Your task to perform on an android device: Go to display settings Image 0: 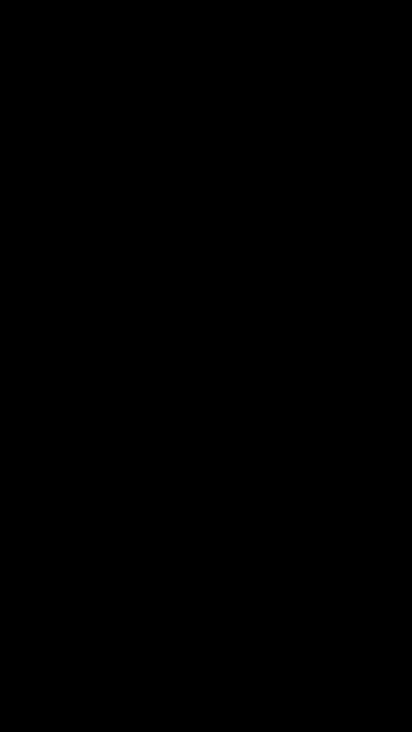
Step 0: press home button
Your task to perform on an android device: Go to display settings Image 1: 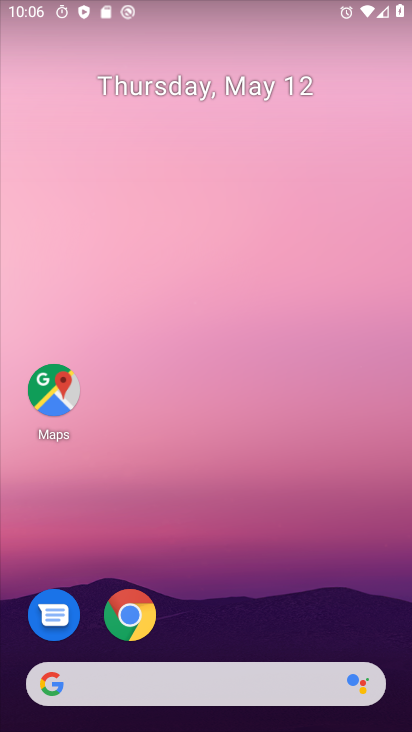
Step 1: drag from (301, 602) to (236, 93)
Your task to perform on an android device: Go to display settings Image 2: 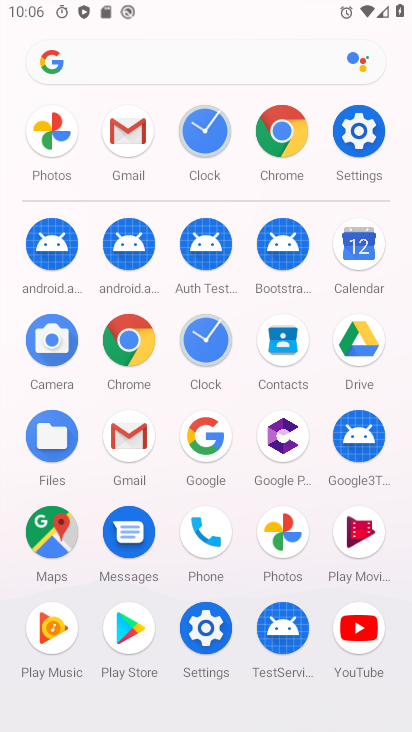
Step 2: click (360, 131)
Your task to perform on an android device: Go to display settings Image 3: 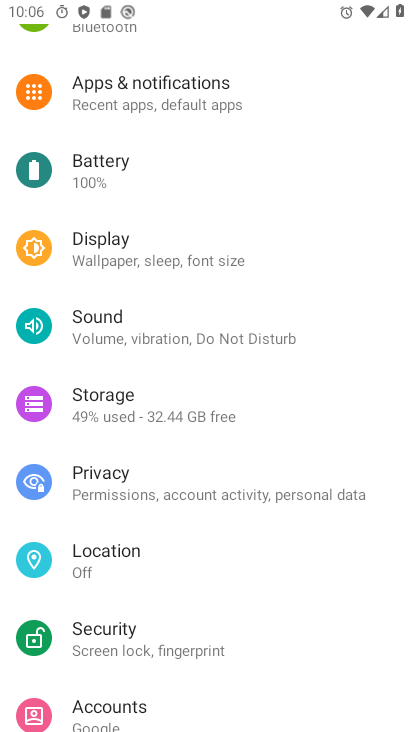
Step 3: drag from (193, 618) to (234, 126)
Your task to perform on an android device: Go to display settings Image 4: 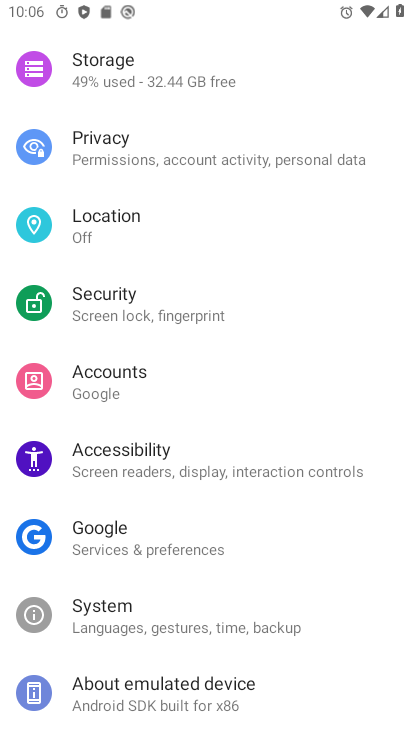
Step 4: drag from (201, 227) to (187, 705)
Your task to perform on an android device: Go to display settings Image 5: 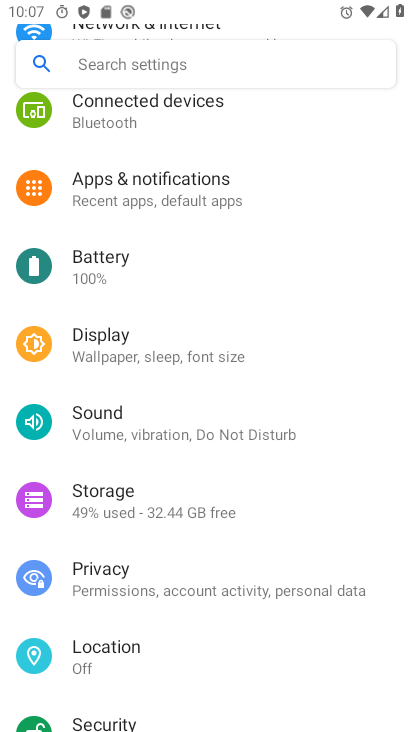
Step 5: drag from (169, 195) to (156, 373)
Your task to perform on an android device: Go to display settings Image 6: 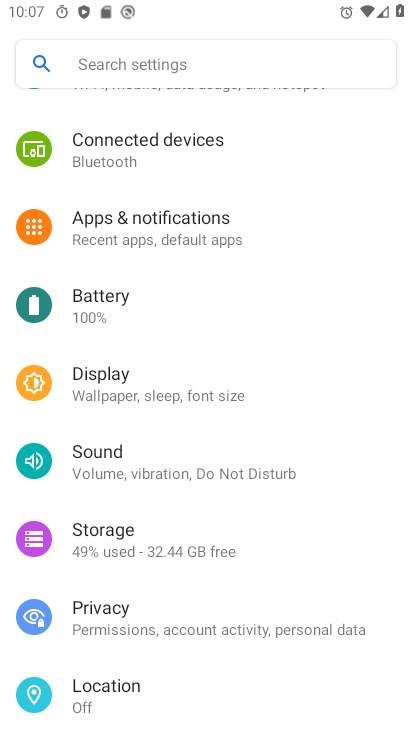
Step 6: click (146, 396)
Your task to perform on an android device: Go to display settings Image 7: 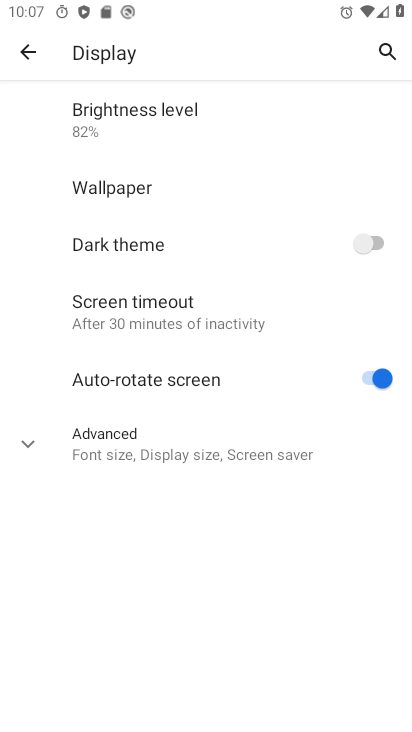
Step 7: task complete